Your task to perform on an android device: Turn off the flashlight Image 0: 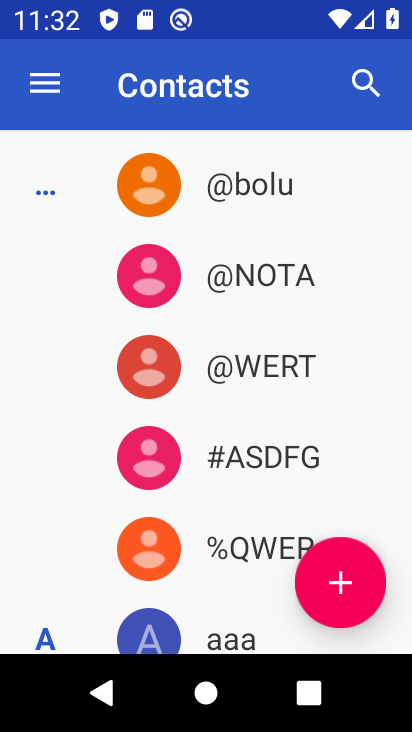
Step 0: press home button
Your task to perform on an android device: Turn off the flashlight Image 1: 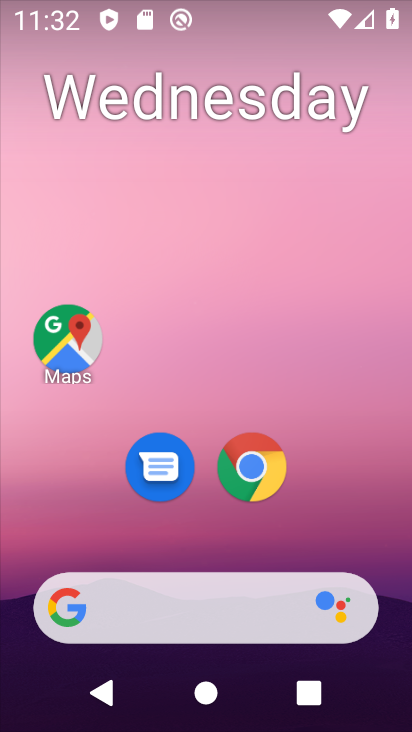
Step 1: task complete